Your task to perform on an android device: Open Reddit.com Image 0: 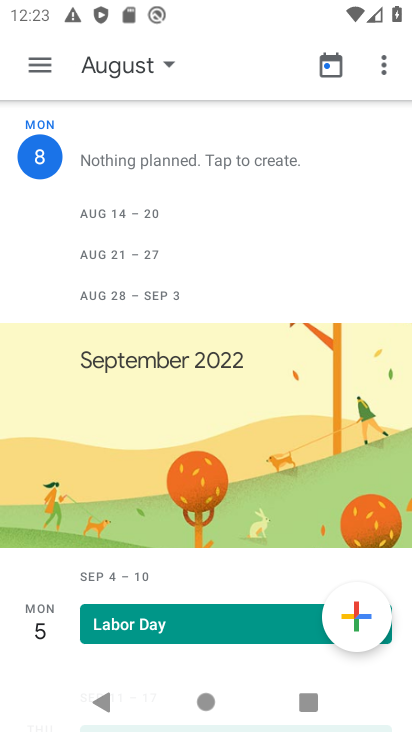
Step 0: press home button
Your task to perform on an android device: Open Reddit.com Image 1: 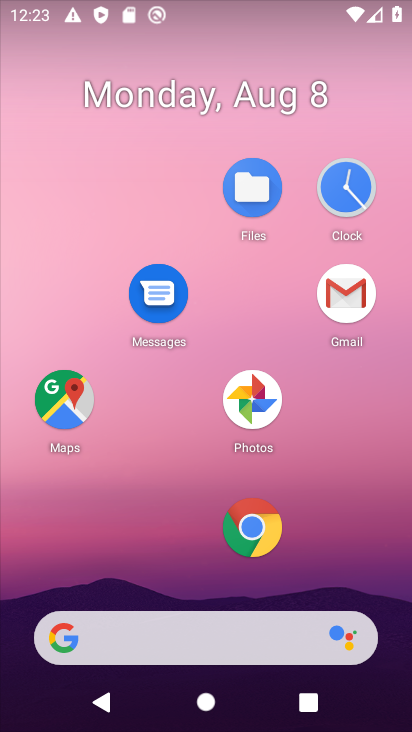
Step 1: click (167, 650)
Your task to perform on an android device: Open Reddit.com Image 2: 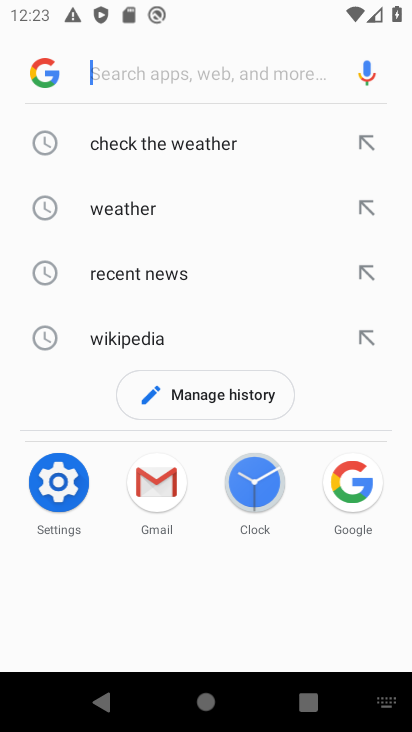
Step 2: type " Reddit.com"
Your task to perform on an android device: Open Reddit.com Image 3: 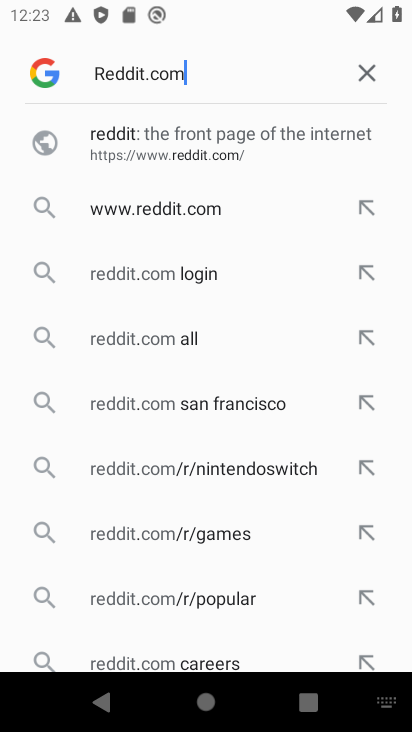
Step 3: press enter
Your task to perform on an android device: Open Reddit.com Image 4: 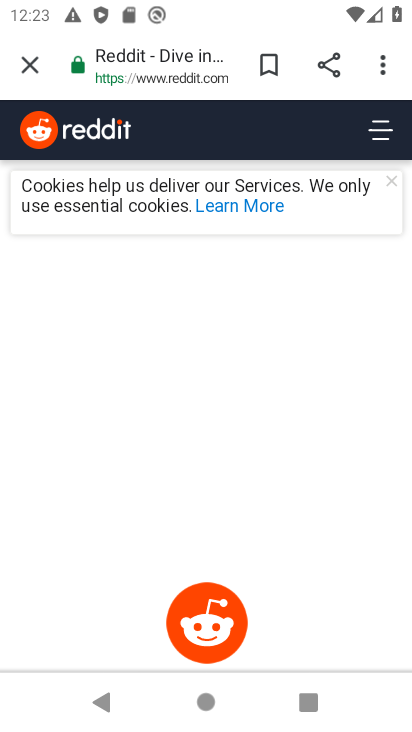
Step 4: task complete